Your task to perform on an android device: change alarm snooze length Image 0: 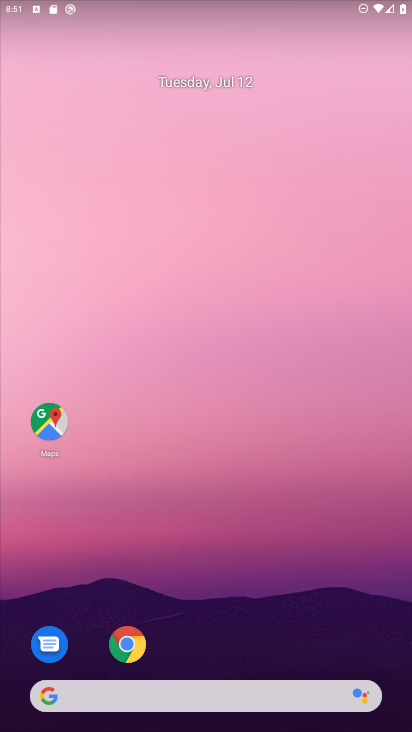
Step 0: drag from (378, 661) to (312, 269)
Your task to perform on an android device: change alarm snooze length Image 1: 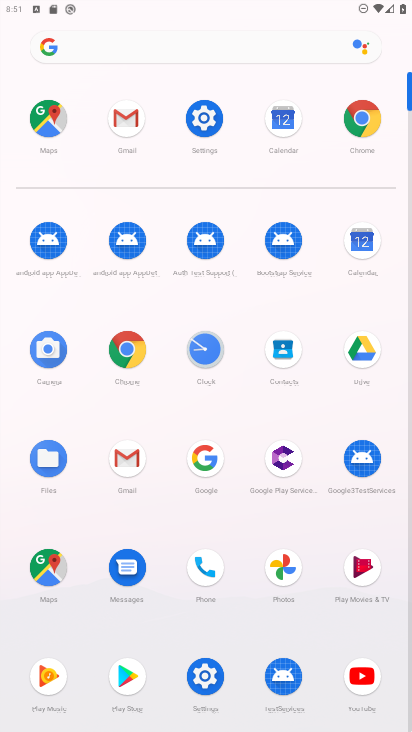
Step 1: click (201, 350)
Your task to perform on an android device: change alarm snooze length Image 2: 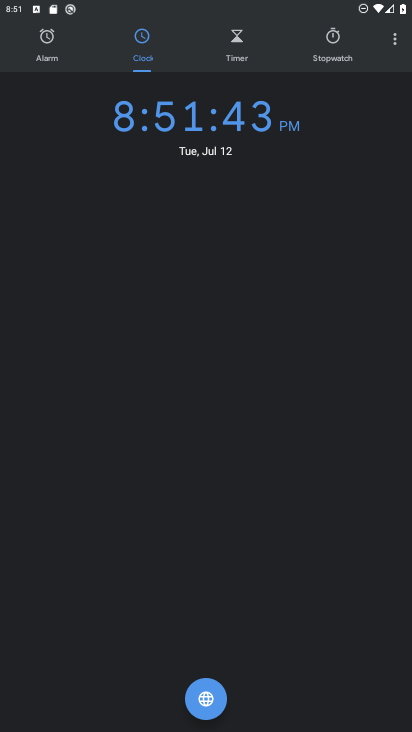
Step 2: click (392, 45)
Your task to perform on an android device: change alarm snooze length Image 3: 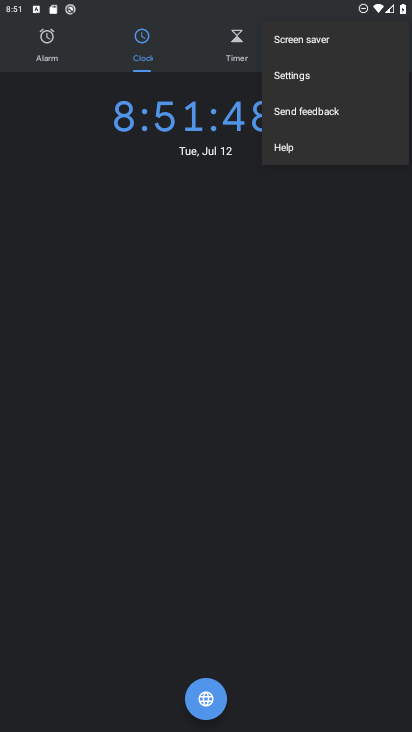
Step 3: click (290, 79)
Your task to perform on an android device: change alarm snooze length Image 4: 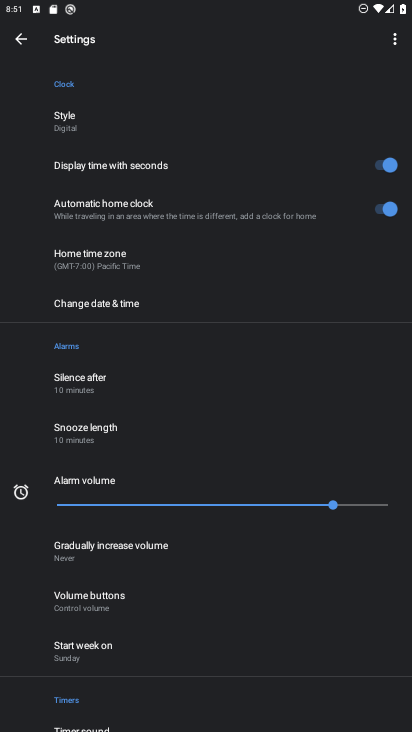
Step 4: drag from (154, 628) to (160, 497)
Your task to perform on an android device: change alarm snooze length Image 5: 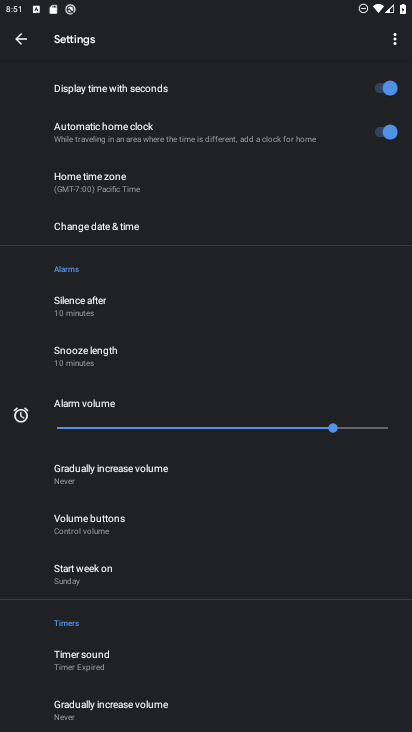
Step 5: click (70, 350)
Your task to perform on an android device: change alarm snooze length Image 6: 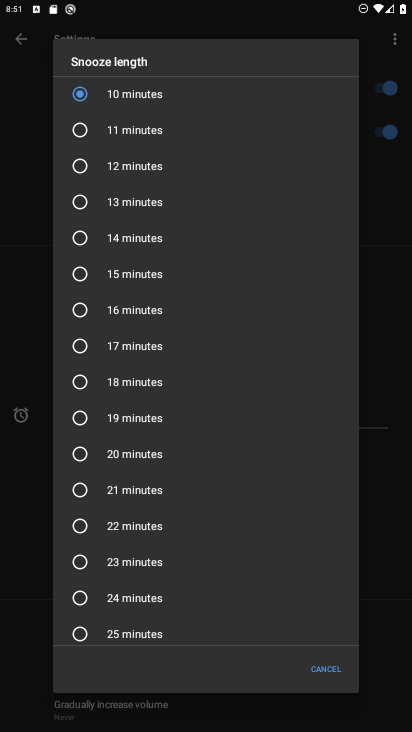
Step 6: click (83, 269)
Your task to perform on an android device: change alarm snooze length Image 7: 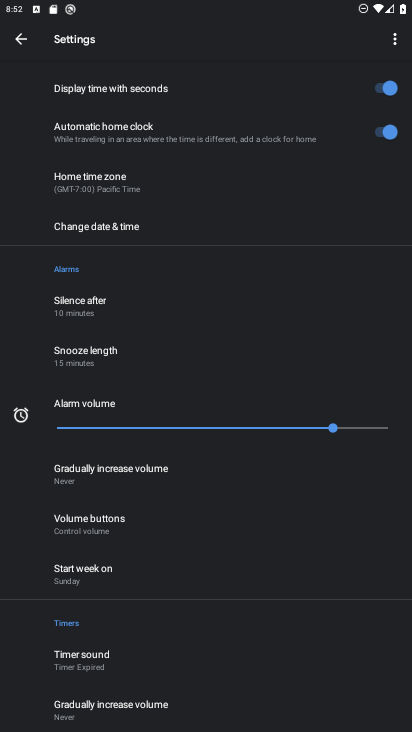
Step 7: task complete